Your task to perform on an android device: toggle show notifications on the lock screen Image 0: 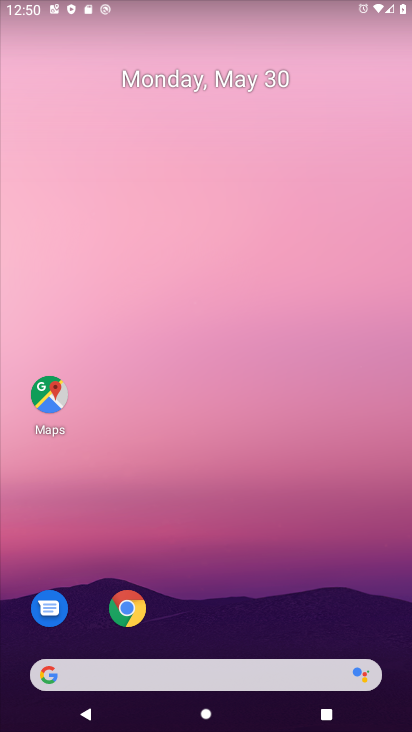
Step 0: drag from (181, 600) to (163, 11)
Your task to perform on an android device: toggle show notifications on the lock screen Image 1: 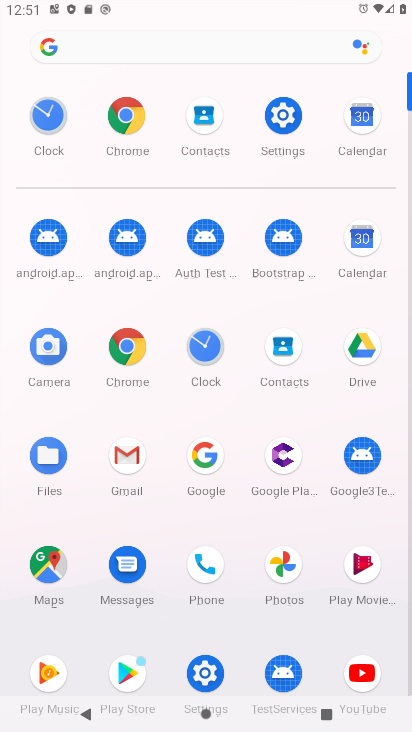
Step 1: click (281, 124)
Your task to perform on an android device: toggle show notifications on the lock screen Image 2: 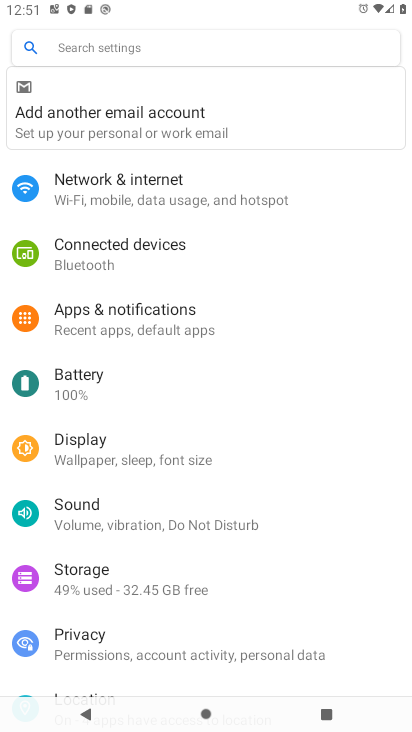
Step 2: click (153, 313)
Your task to perform on an android device: toggle show notifications on the lock screen Image 3: 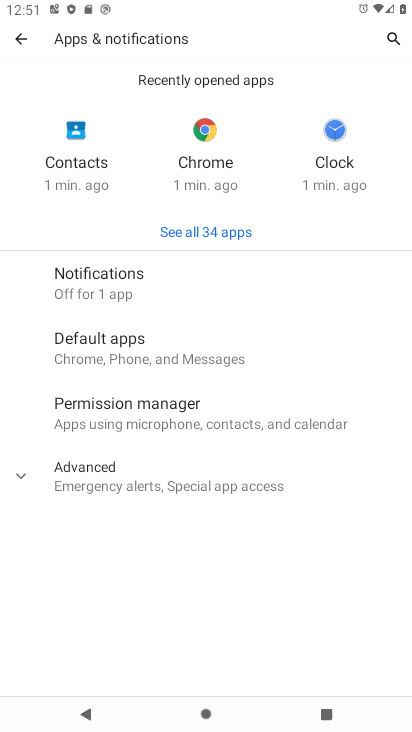
Step 3: click (157, 468)
Your task to perform on an android device: toggle show notifications on the lock screen Image 4: 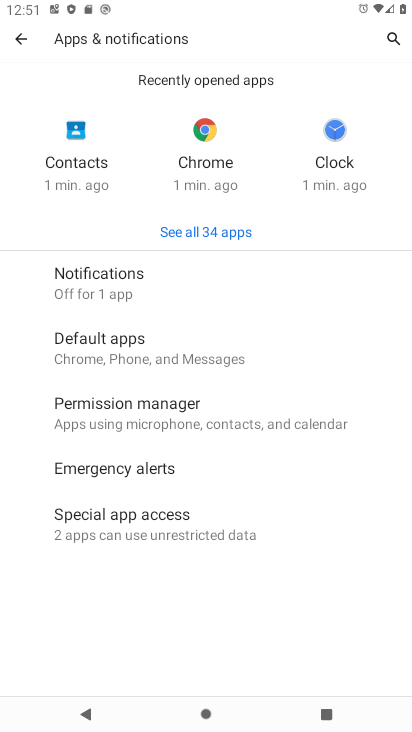
Step 4: click (117, 285)
Your task to perform on an android device: toggle show notifications on the lock screen Image 5: 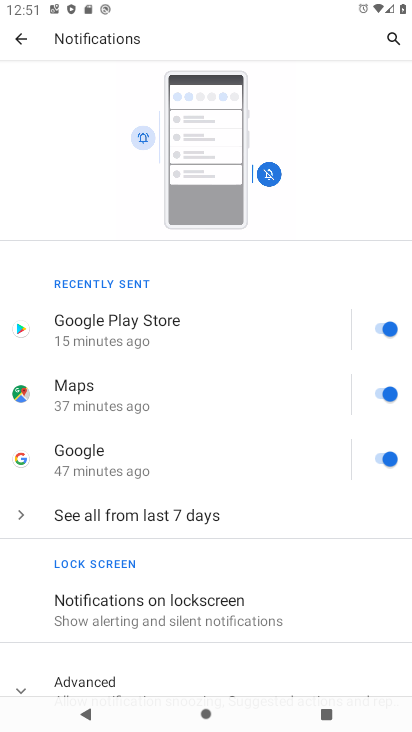
Step 5: click (119, 594)
Your task to perform on an android device: toggle show notifications on the lock screen Image 6: 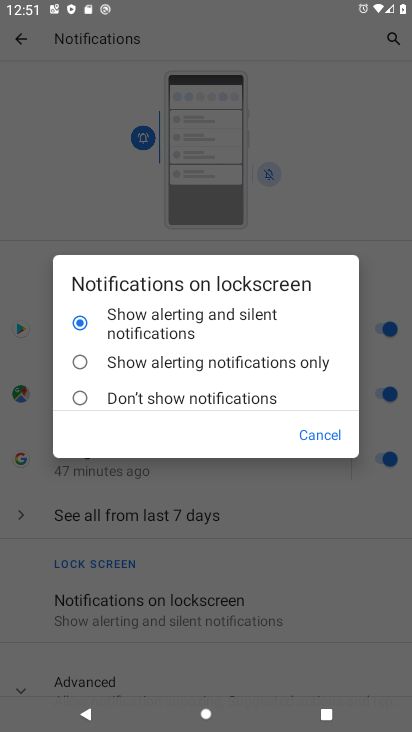
Step 6: click (80, 397)
Your task to perform on an android device: toggle show notifications on the lock screen Image 7: 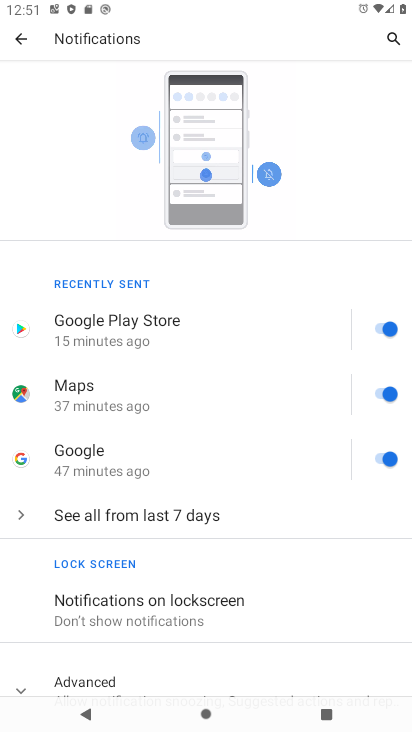
Step 7: task complete